Your task to perform on an android device: change the clock display to digital Image 0: 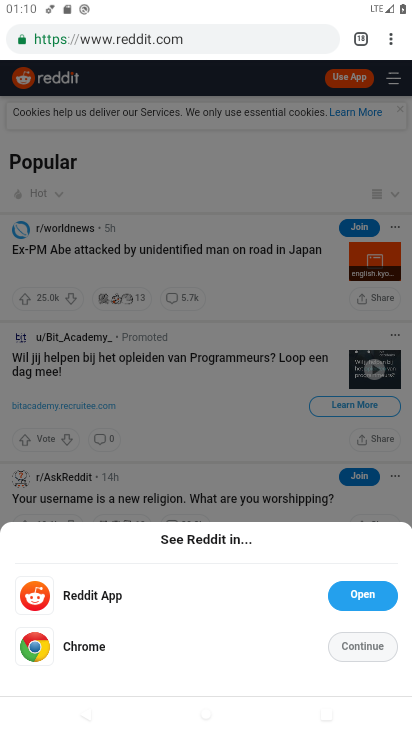
Step 0: press home button
Your task to perform on an android device: change the clock display to digital Image 1: 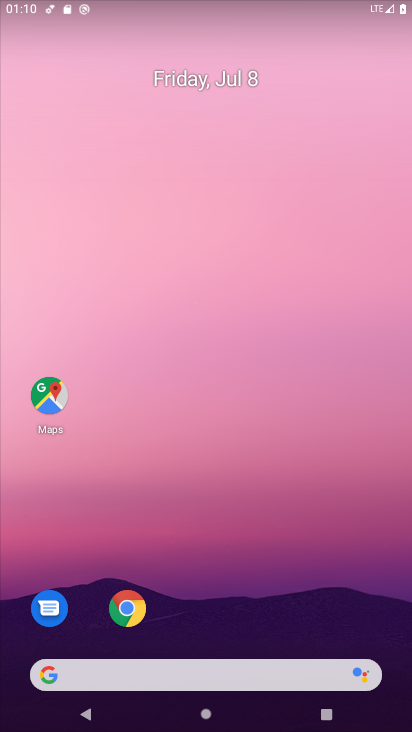
Step 1: drag from (201, 193) to (188, 43)
Your task to perform on an android device: change the clock display to digital Image 2: 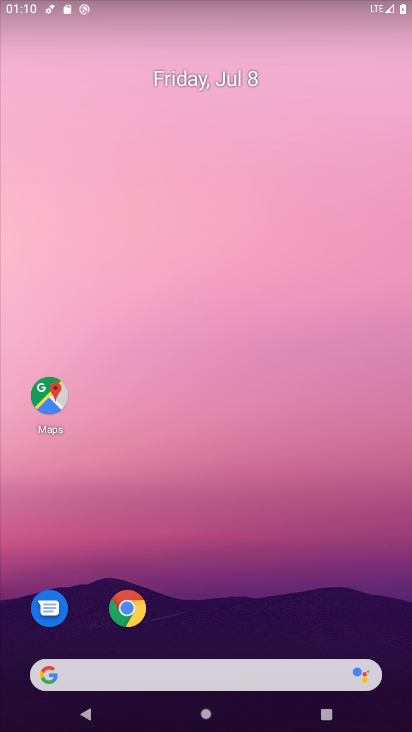
Step 2: drag from (238, 569) to (200, 112)
Your task to perform on an android device: change the clock display to digital Image 3: 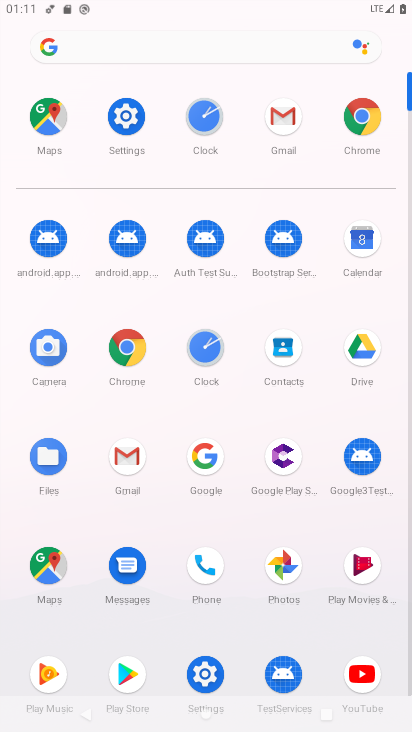
Step 3: click (204, 337)
Your task to perform on an android device: change the clock display to digital Image 4: 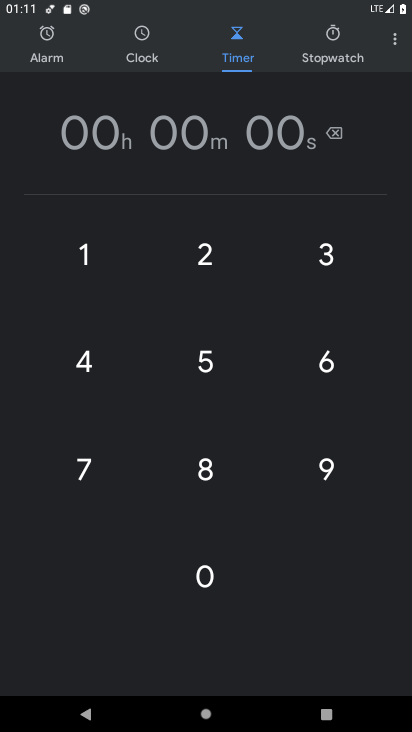
Step 4: click (385, 41)
Your task to perform on an android device: change the clock display to digital Image 5: 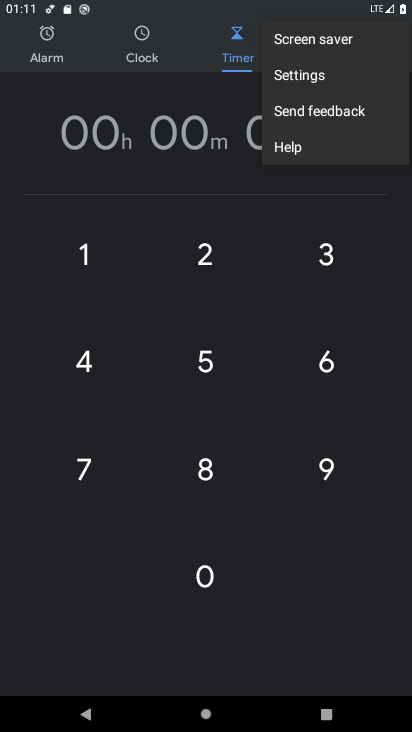
Step 5: click (299, 71)
Your task to perform on an android device: change the clock display to digital Image 6: 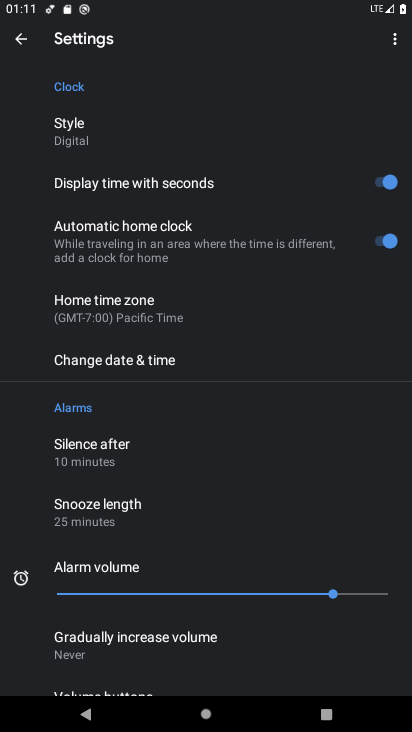
Step 6: click (90, 134)
Your task to perform on an android device: change the clock display to digital Image 7: 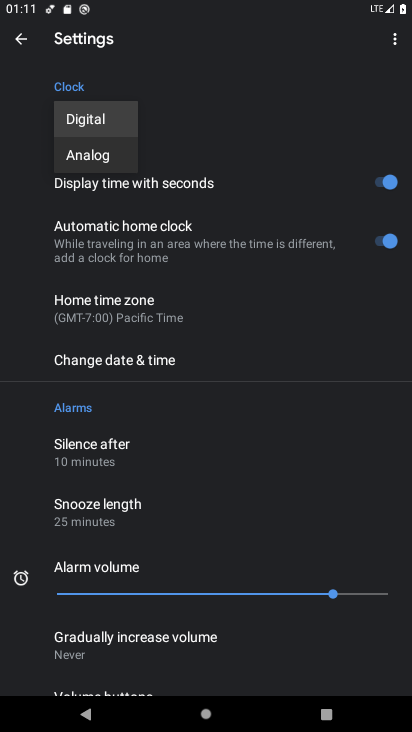
Step 7: task complete